Your task to perform on an android device: Show me popular videos on Youtube Image 0: 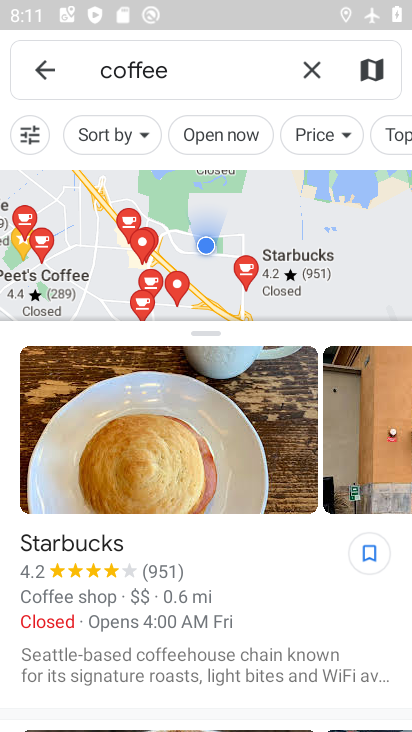
Step 0: press home button
Your task to perform on an android device: Show me popular videos on Youtube Image 1: 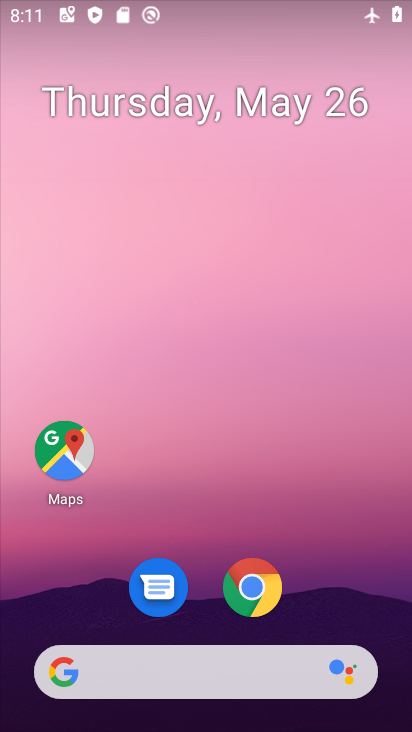
Step 1: drag from (192, 628) to (164, 202)
Your task to perform on an android device: Show me popular videos on Youtube Image 2: 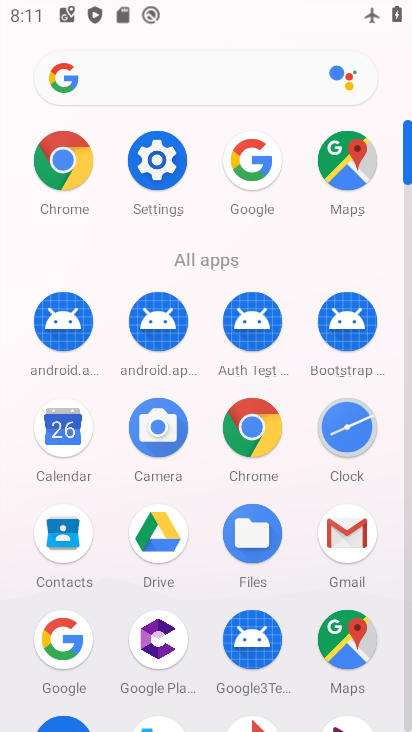
Step 2: drag from (249, 577) to (256, 265)
Your task to perform on an android device: Show me popular videos on Youtube Image 3: 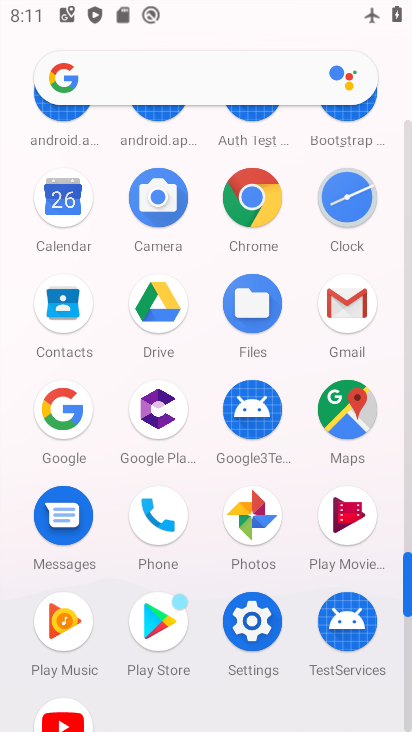
Step 3: drag from (156, 661) to (161, 440)
Your task to perform on an android device: Show me popular videos on Youtube Image 4: 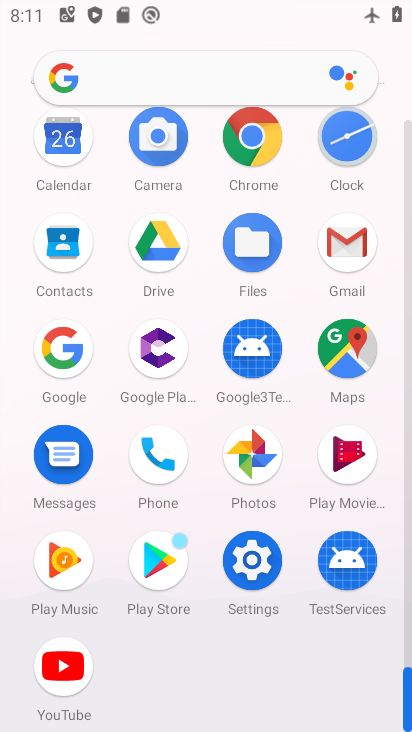
Step 4: click (54, 653)
Your task to perform on an android device: Show me popular videos on Youtube Image 5: 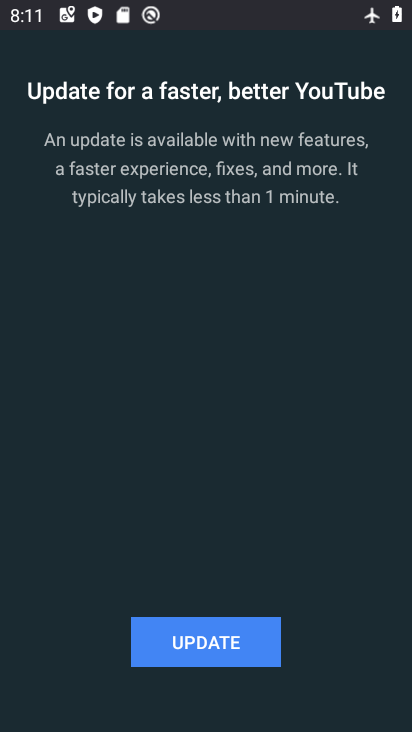
Step 5: click (231, 631)
Your task to perform on an android device: Show me popular videos on Youtube Image 6: 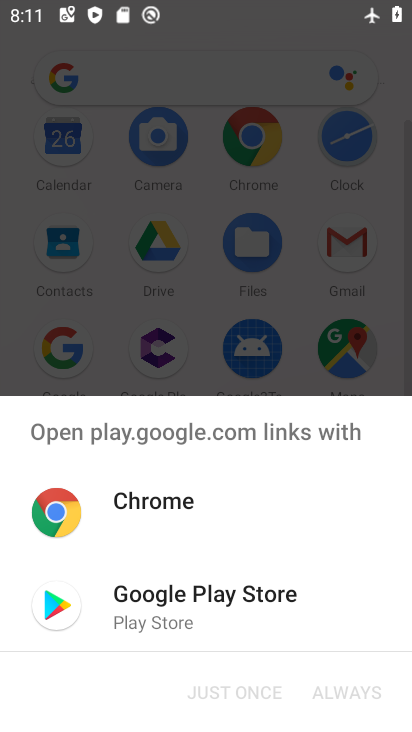
Step 6: click (181, 595)
Your task to perform on an android device: Show me popular videos on Youtube Image 7: 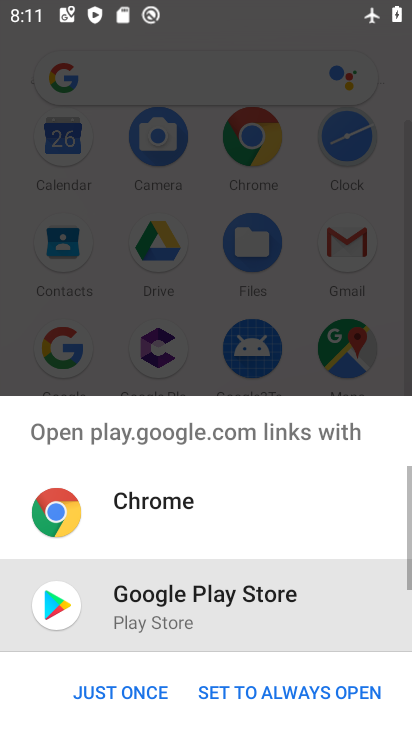
Step 7: click (138, 687)
Your task to perform on an android device: Show me popular videos on Youtube Image 8: 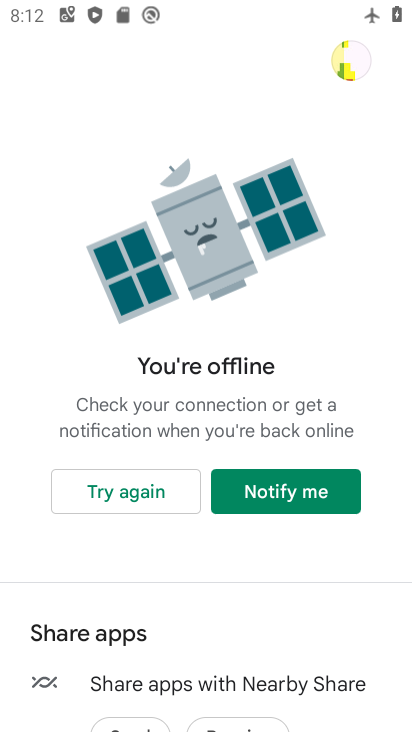
Step 8: press back button
Your task to perform on an android device: Show me popular videos on Youtube Image 9: 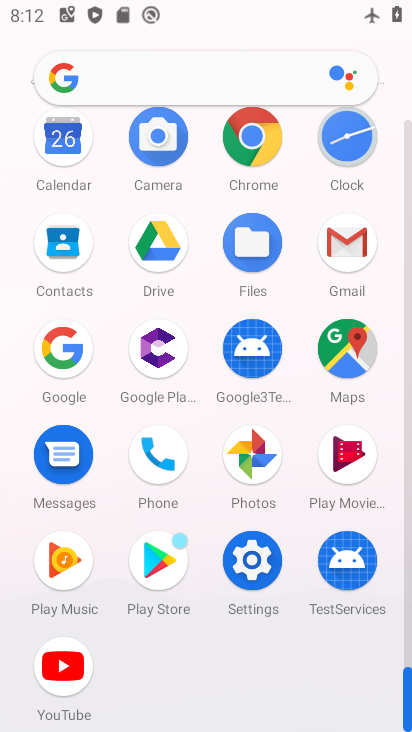
Step 9: click (50, 669)
Your task to perform on an android device: Show me popular videos on Youtube Image 10: 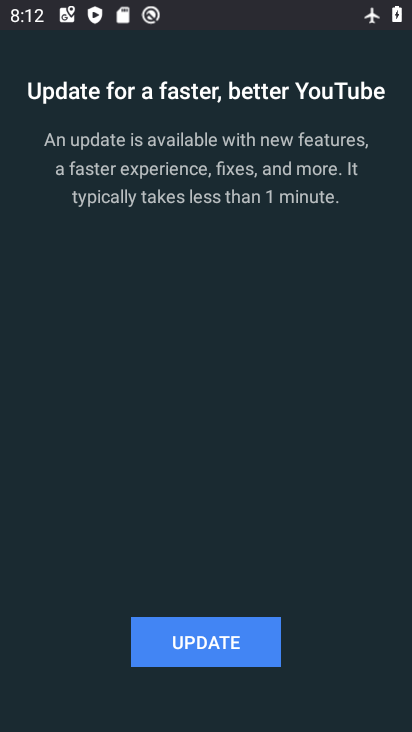
Step 10: click (203, 647)
Your task to perform on an android device: Show me popular videos on Youtube Image 11: 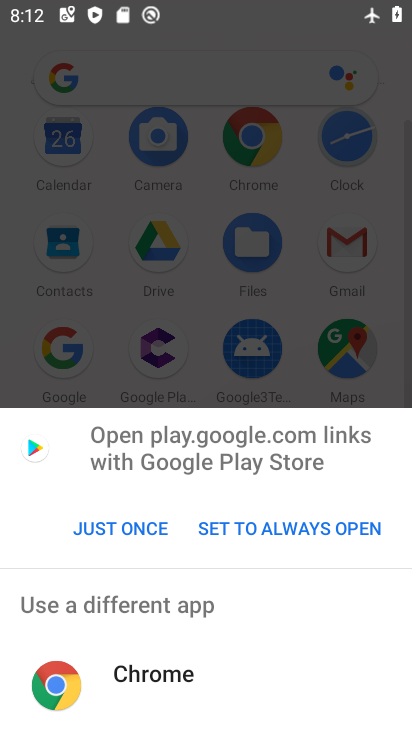
Step 11: task complete